Your task to perform on an android device: Do I have any events this weekend? Image 0: 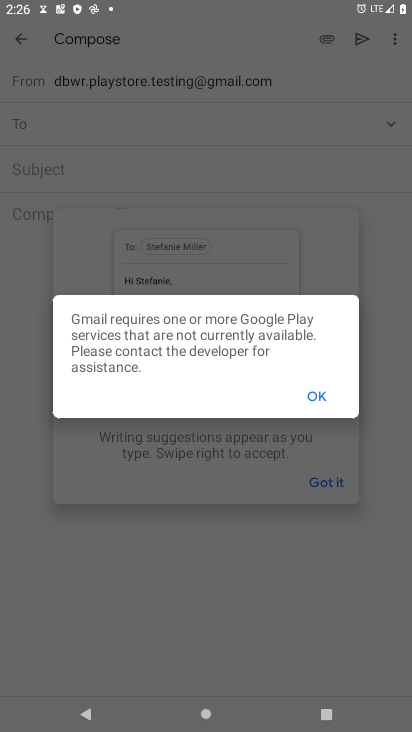
Step 0: press home button
Your task to perform on an android device: Do I have any events this weekend? Image 1: 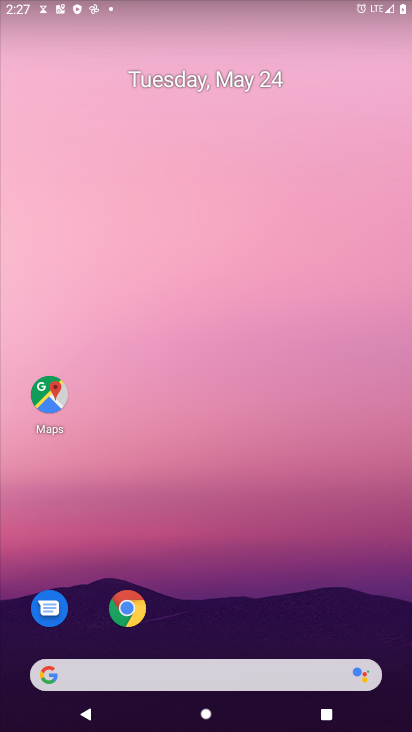
Step 1: drag from (251, 696) to (213, 154)
Your task to perform on an android device: Do I have any events this weekend? Image 2: 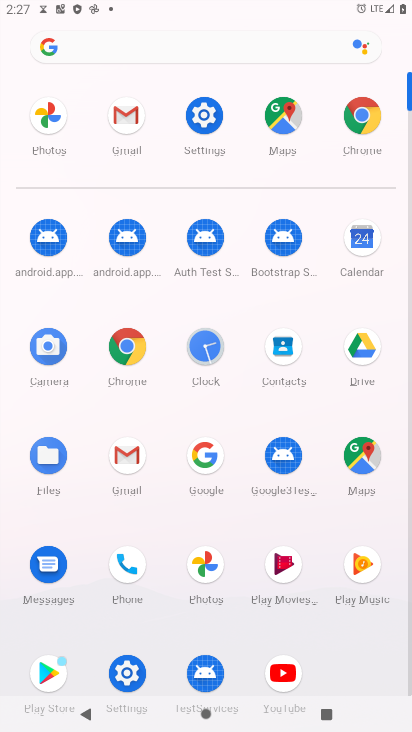
Step 2: click (354, 240)
Your task to perform on an android device: Do I have any events this weekend? Image 3: 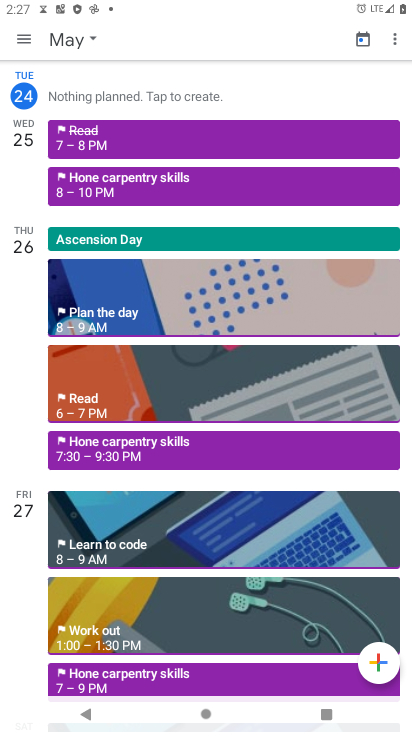
Step 3: task complete